Your task to perform on an android device: Clear the shopping cart on costco. Add "jbl flip 4" to the cart on costco, then select checkout. Image 0: 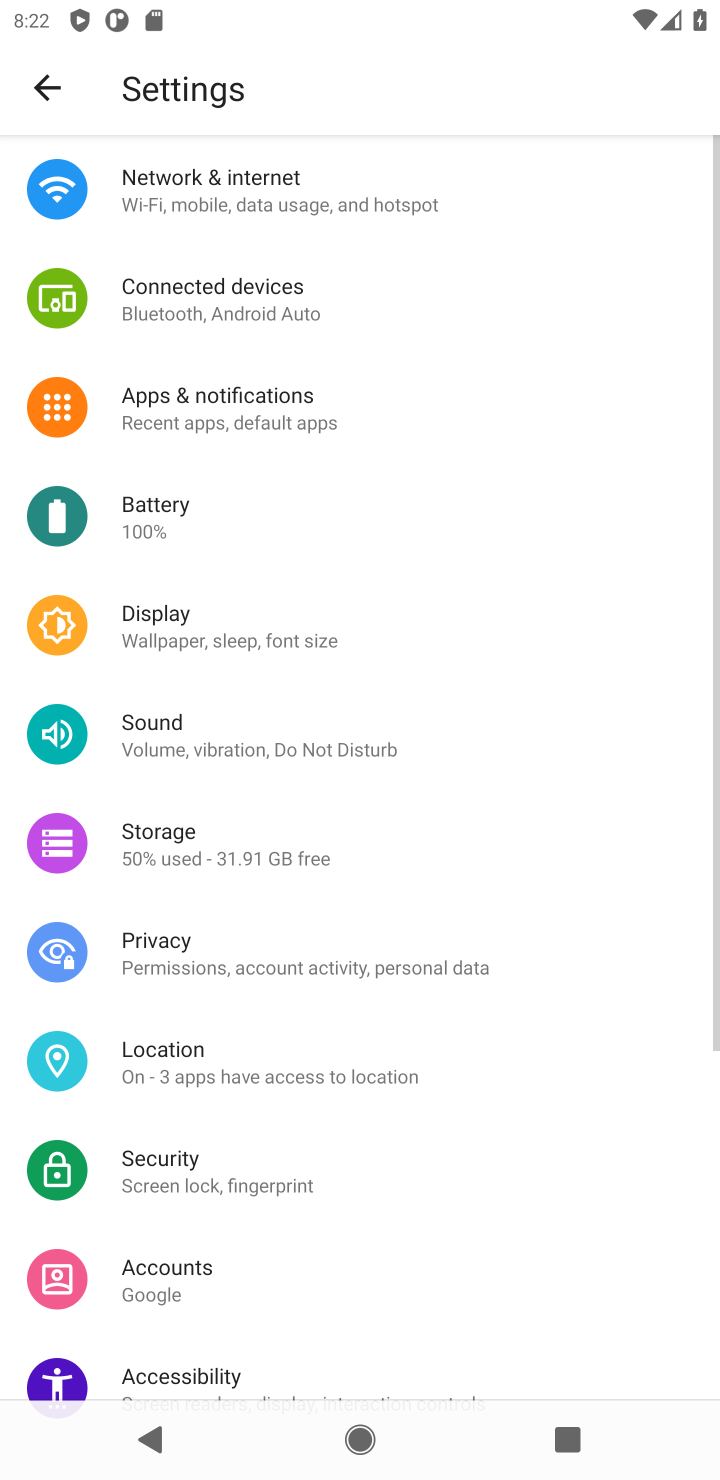
Step 0: press home button
Your task to perform on an android device: Clear the shopping cart on costco. Add "jbl flip 4" to the cart on costco, then select checkout. Image 1: 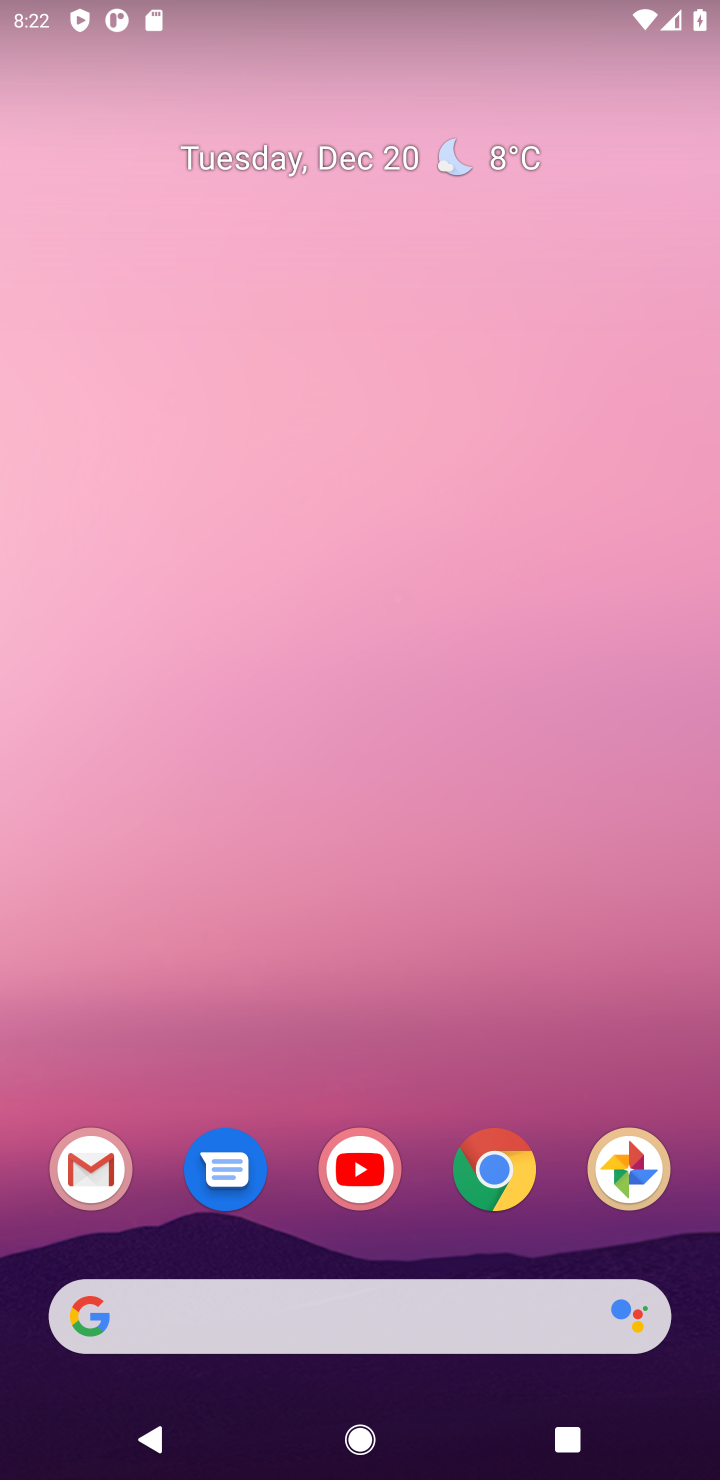
Step 1: click (480, 1205)
Your task to perform on an android device: Clear the shopping cart on costco. Add "jbl flip 4" to the cart on costco, then select checkout. Image 2: 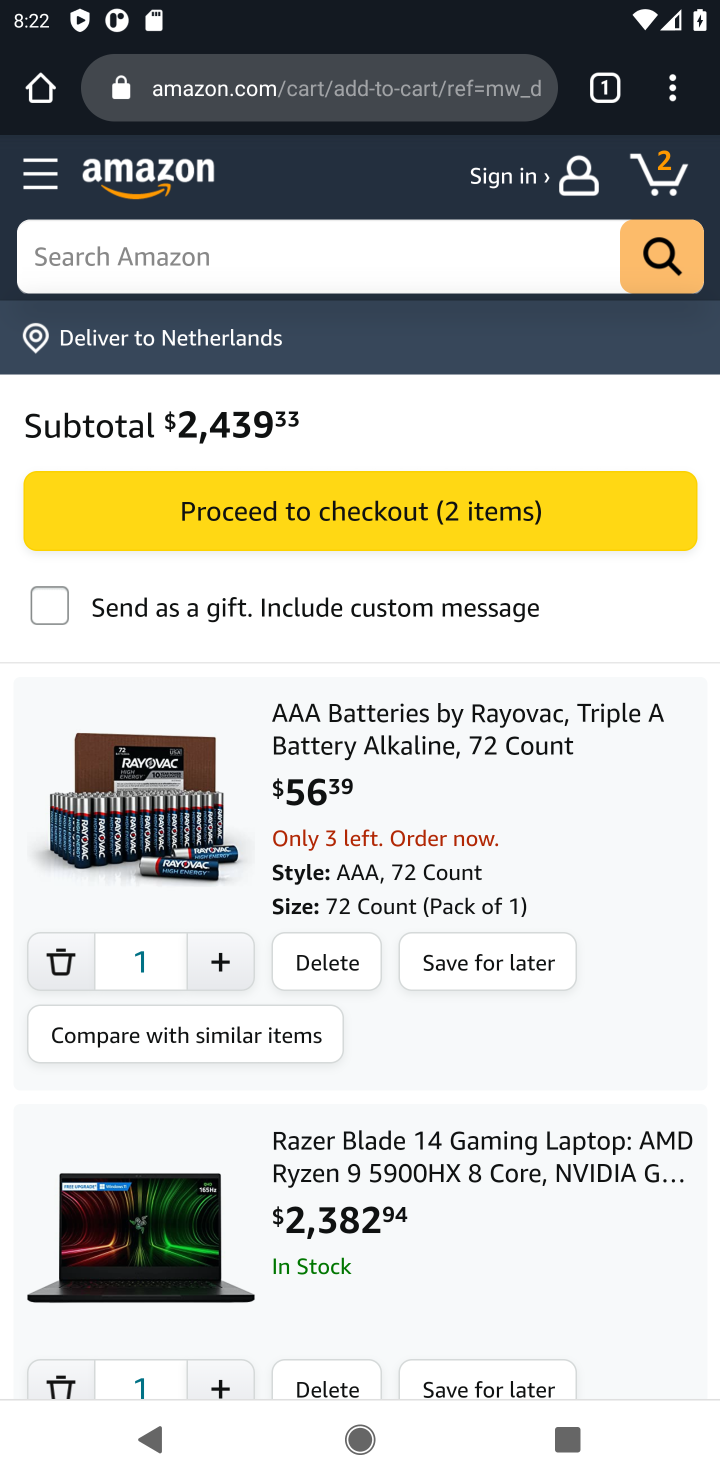
Step 2: click (335, 76)
Your task to perform on an android device: Clear the shopping cart on costco. Add "jbl flip 4" to the cart on costco, then select checkout. Image 3: 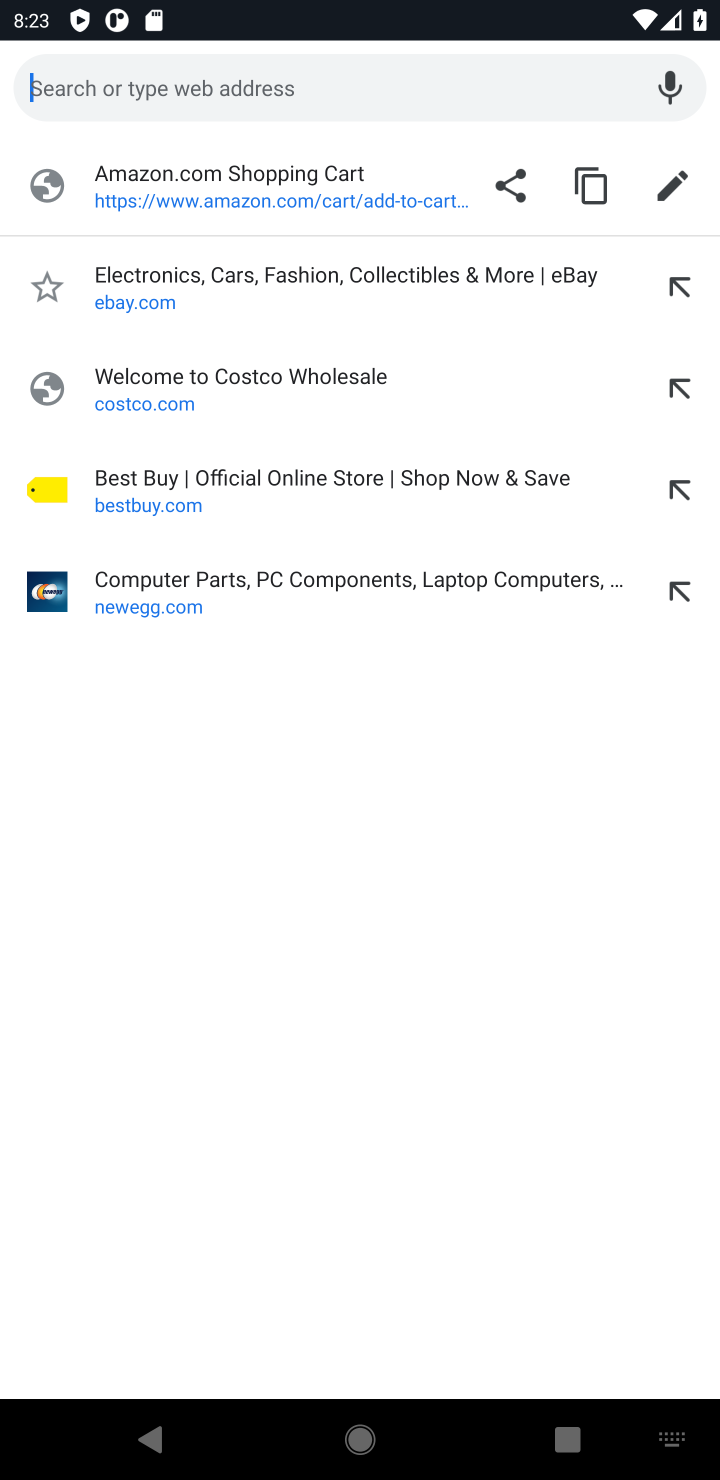
Step 3: click (303, 424)
Your task to perform on an android device: Clear the shopping cart on costco. Add "jbl flip 4" to the cart on costco, then select checkout. Image 4: 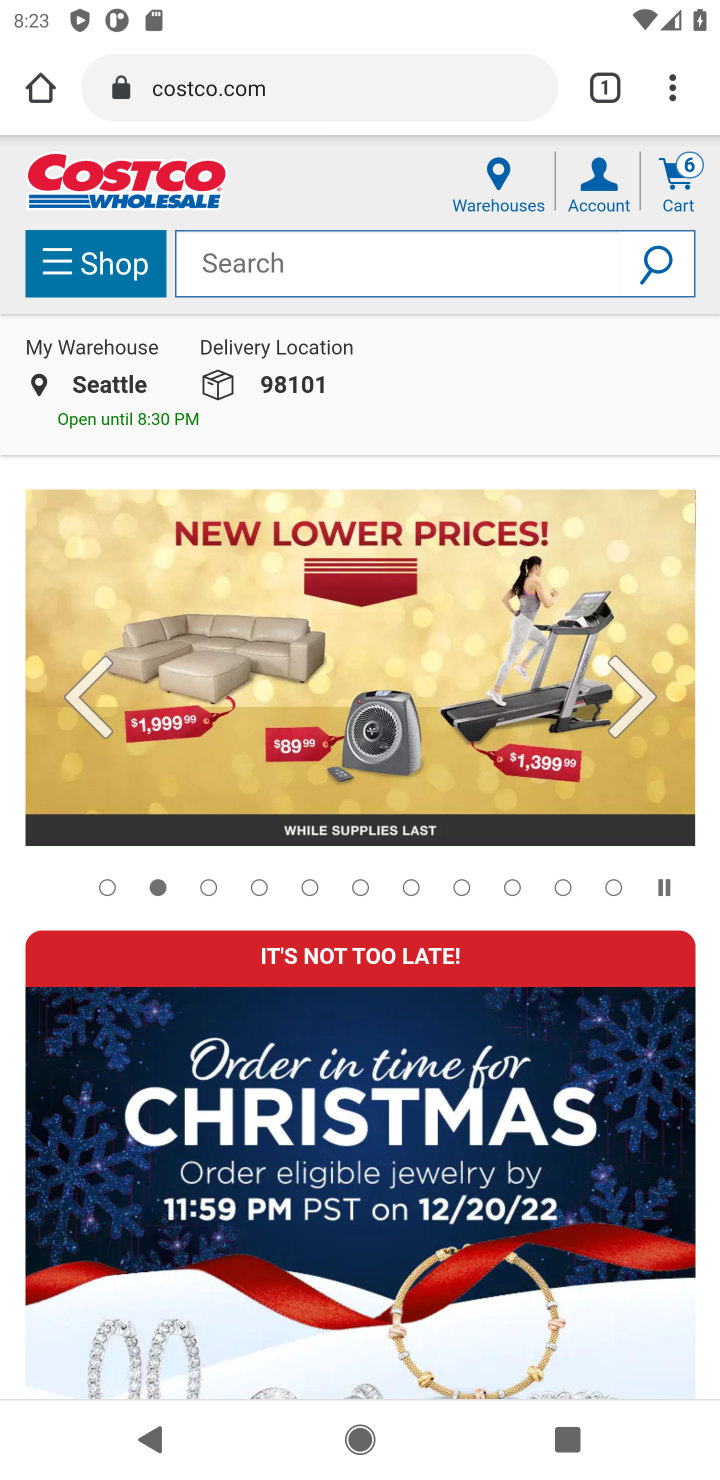
Step 4: click (229, 275)
Your task to perform on an android device: Clear the shopping cart on costco. Add "jbl flip 4" to the cart on costco, then select checkout. Image 5: 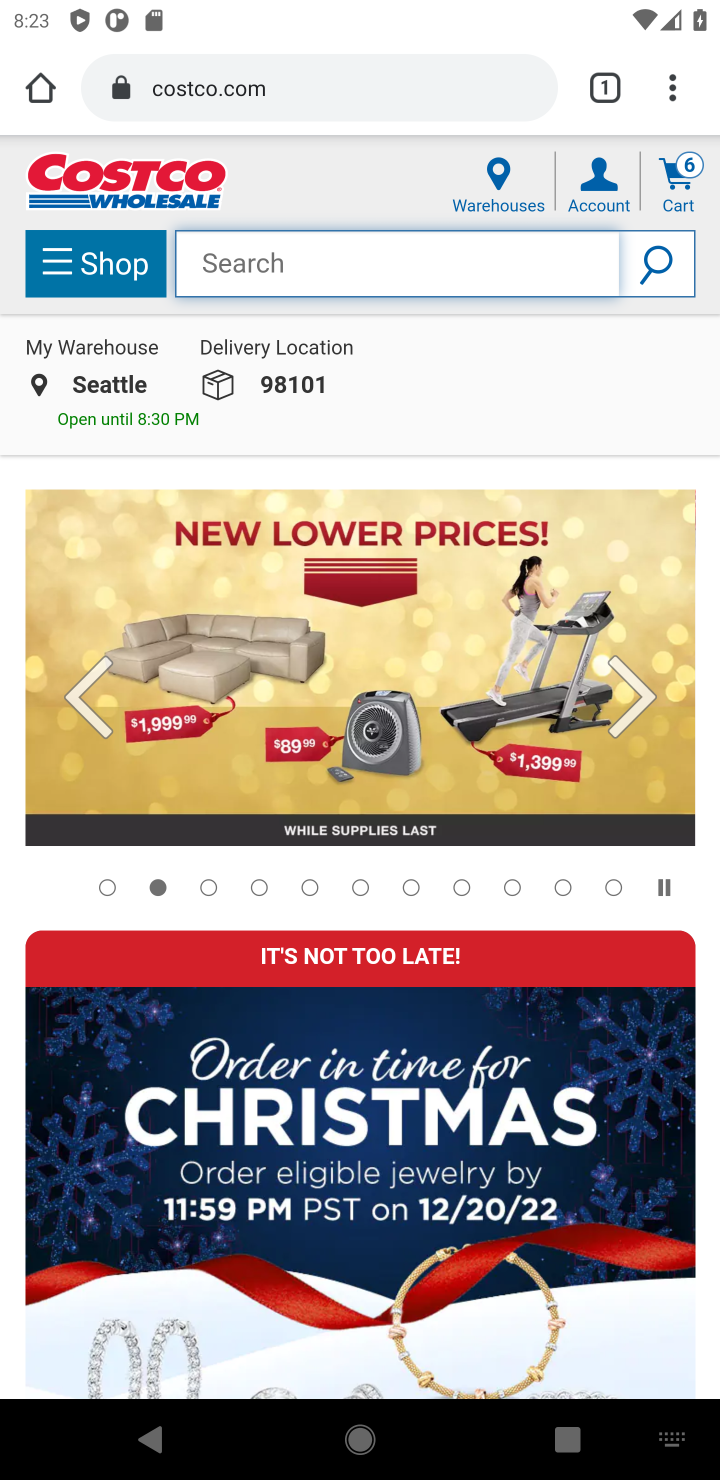
Step 5: click (229, 275)
Your task to perform on an android device: Clear the shopping cart on costco. Add "jbl flip 4" to the cart on costco, then select checkout. Image 6: 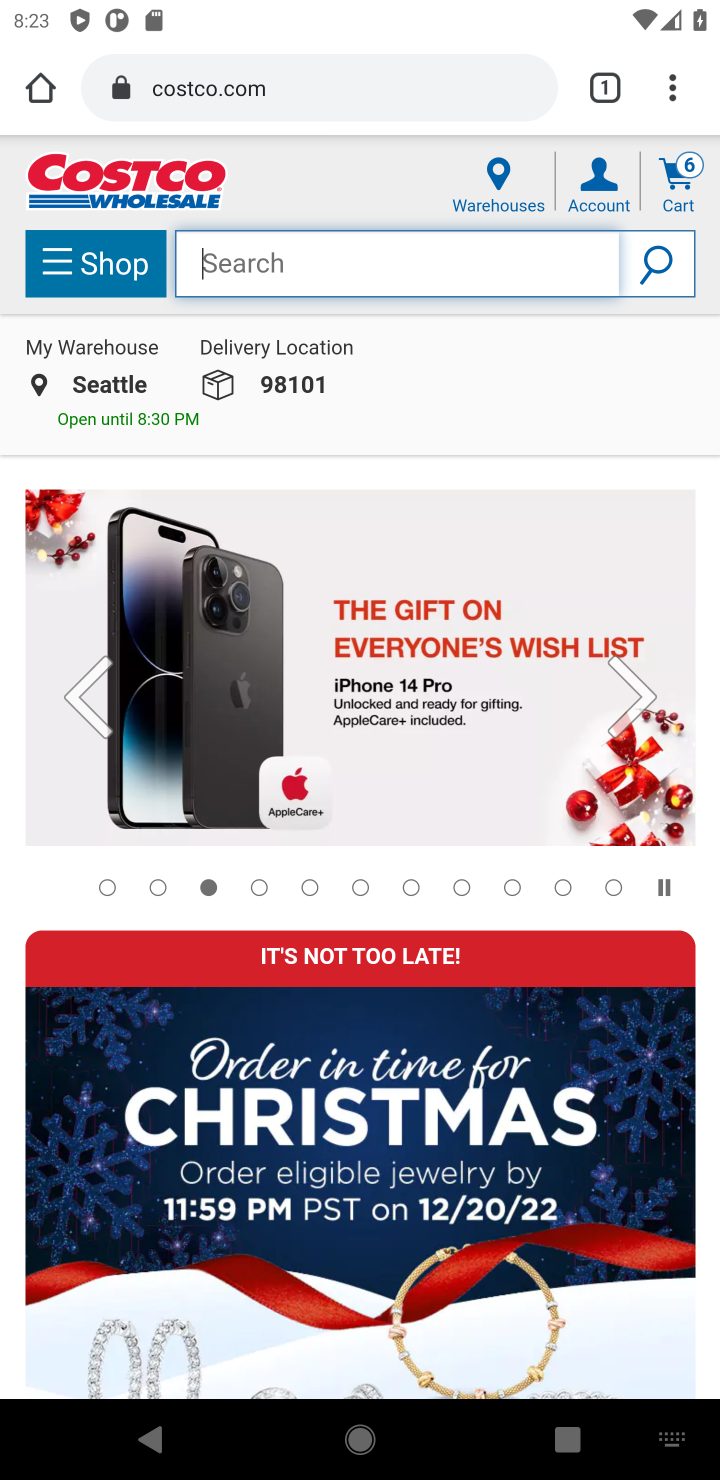
Step 6: type "jbl flip 4"
Your task to perform on an android device: Clear the shopping cart on costco. Add "jbl flip 4" to the cart on costco, then select checkout. Image 7: 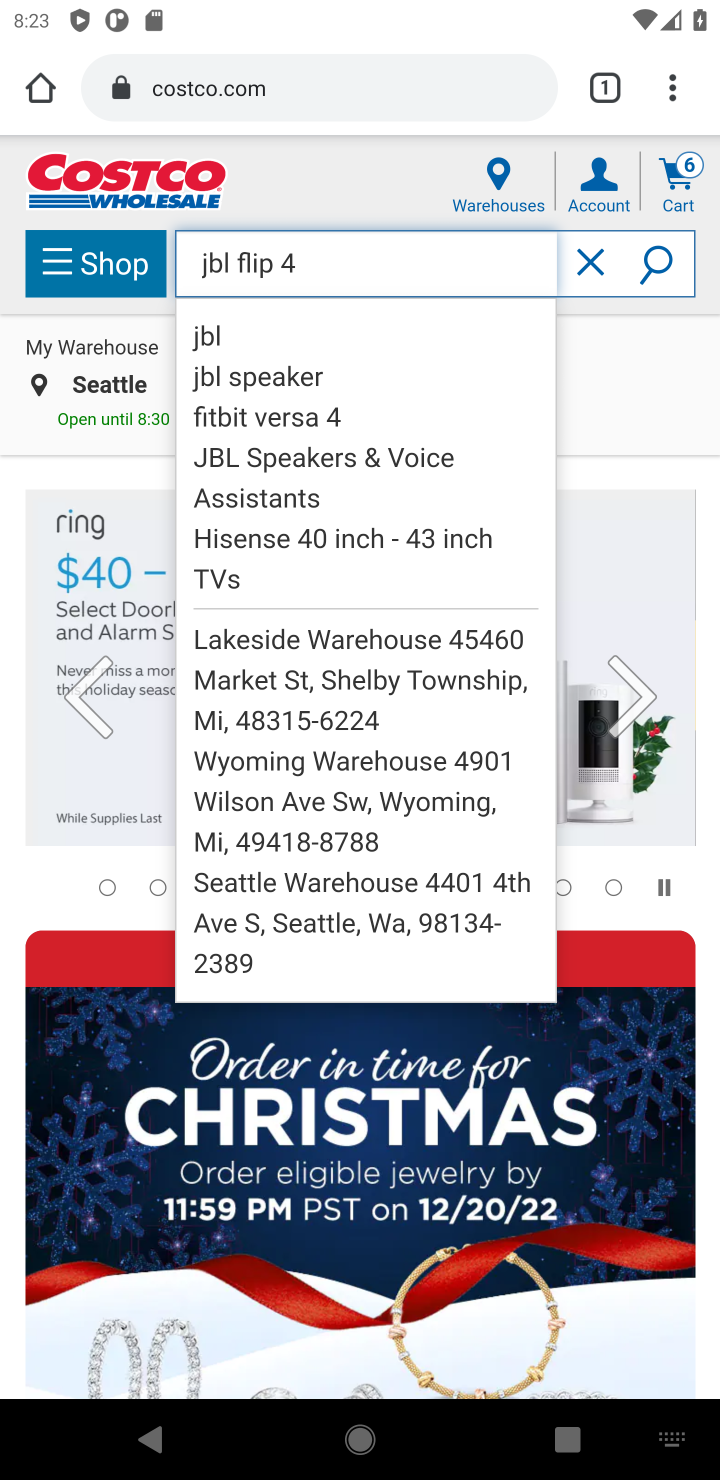
Step 7: click (646, 270)
Your task to perform on an android device: Clear the shopping cart on costco. Add "jbl flip 4" to the cart on costco, then select checkout. Image 8: 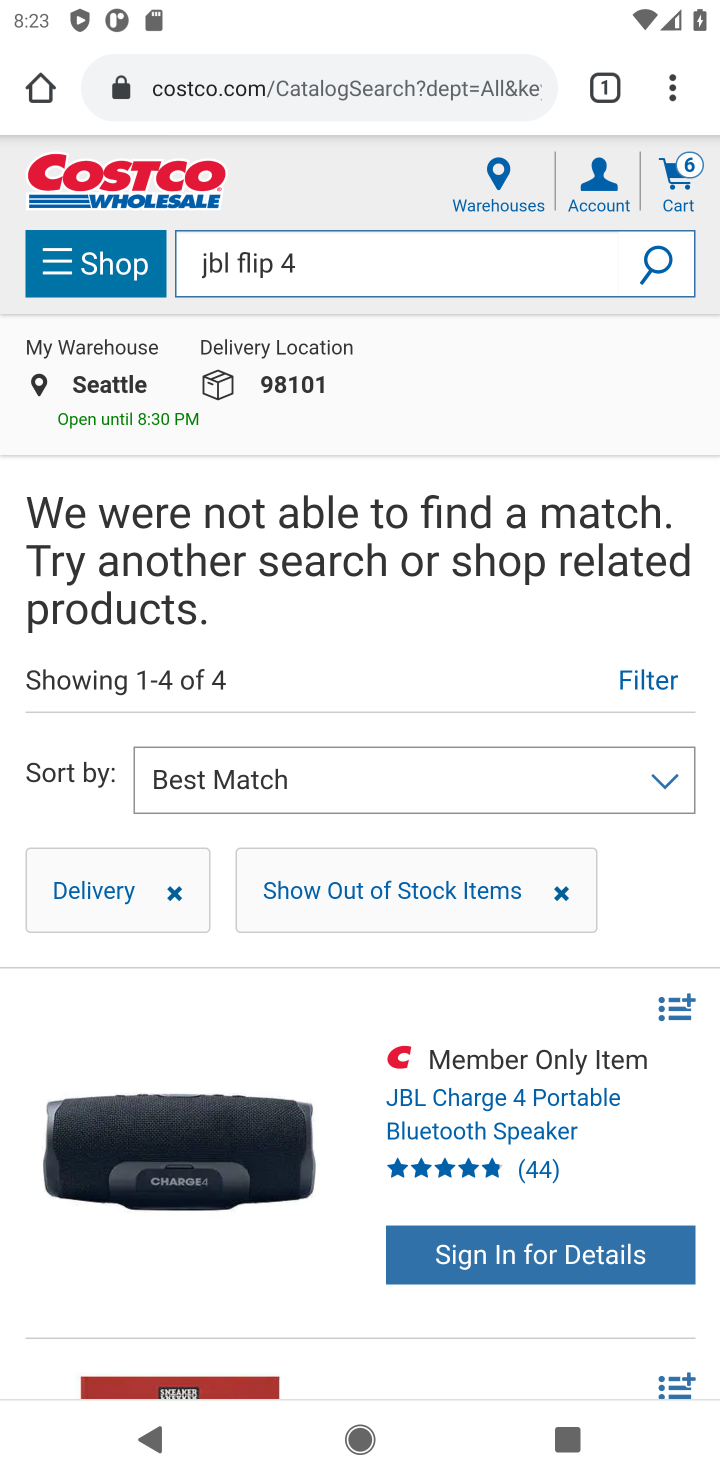
Step 8: click (555, 1125)
Your task to perform on an android device: Clear the shopping cart on costco. Add "jbl flip 4" to the cart on costco, then select checkout. Image 9: 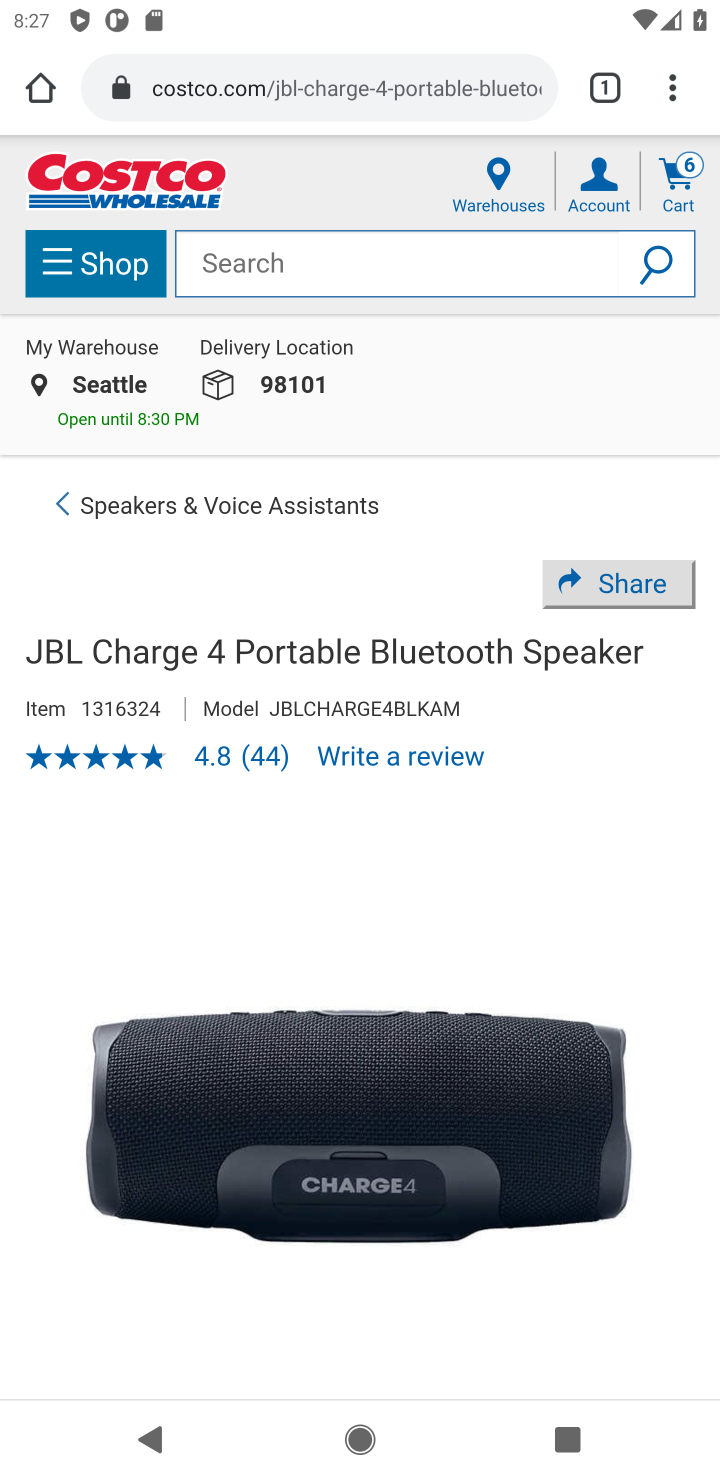
Step 9: task complete